Your task to perform on an android device: Do I have any events today? Image 0: 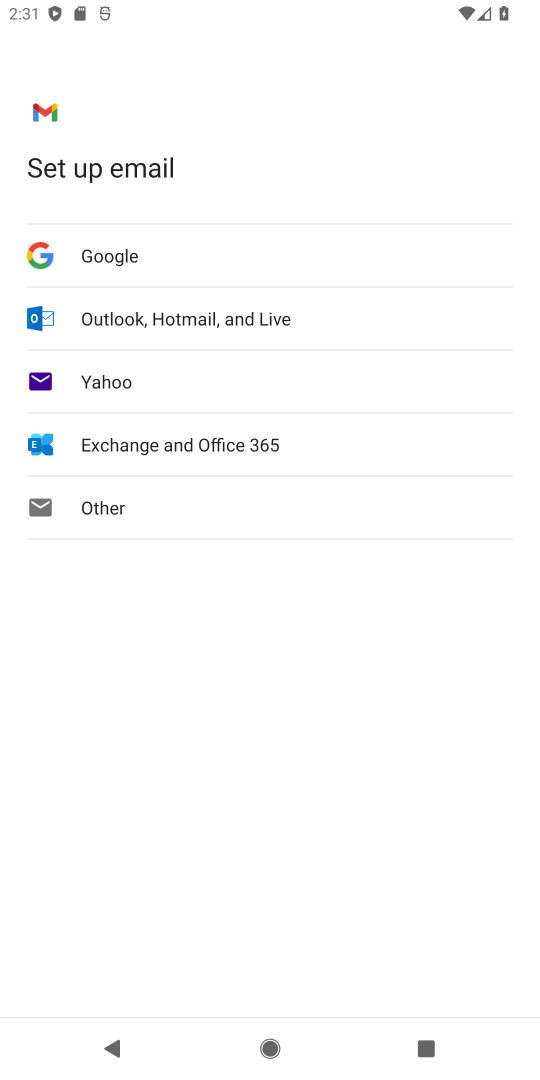
Step 0: press home button
Your task to perform on an android device: Do I have any events today? Image 1: 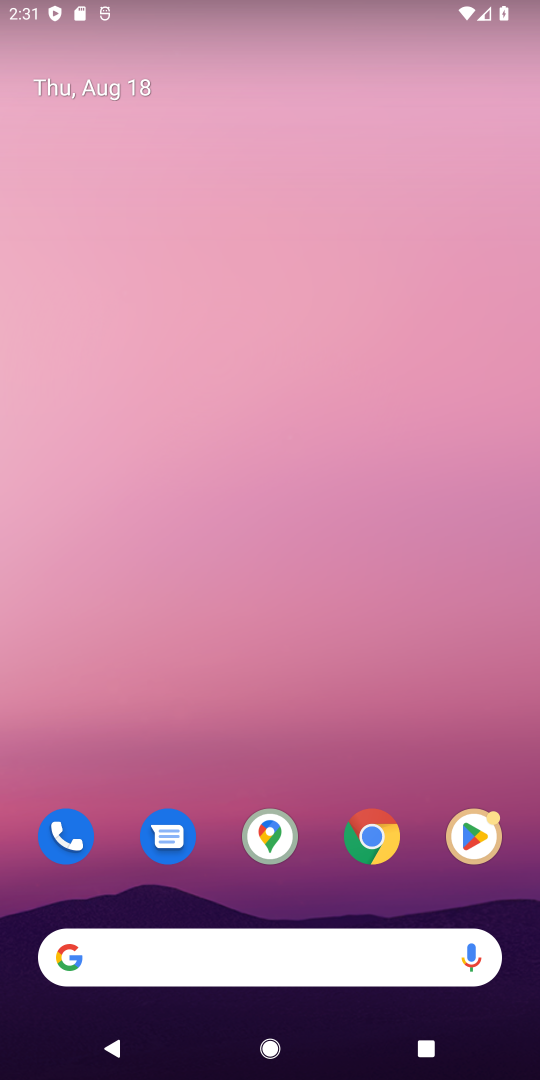
Step 1: drag from (265, 825) to (331, 199)
Your task to perform on an android device: Do I have any events today? Image 2: 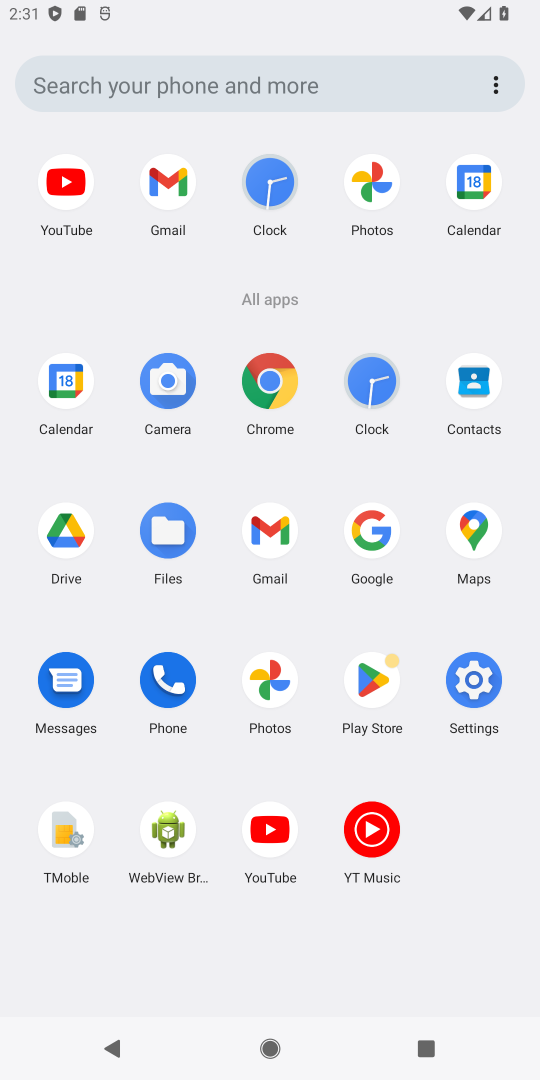
Step 2: click (56, 382)
Your task to perform on an android device: Do I have any events today? Image 3: 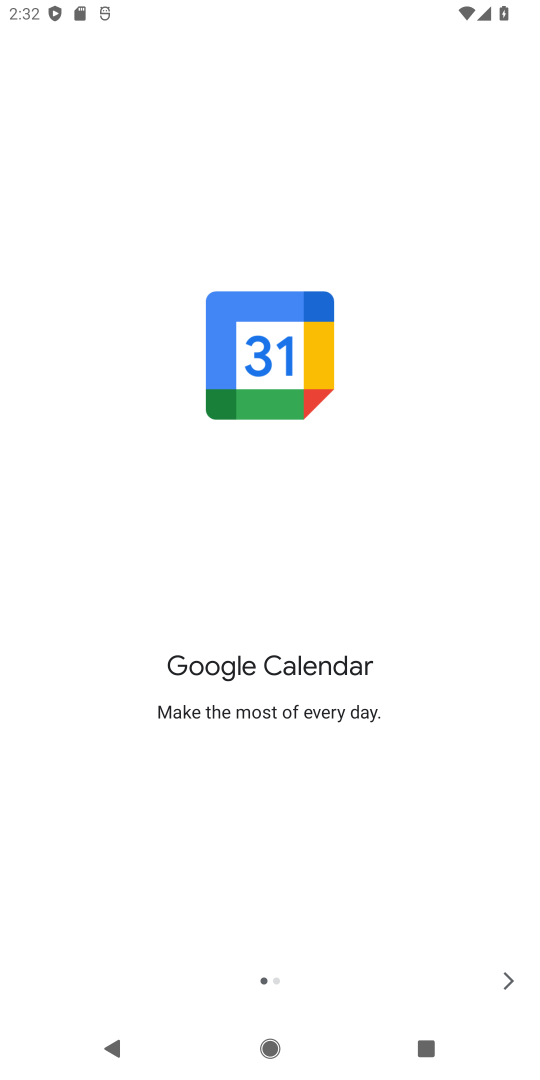
Step 3: click (499, 966)
Your task to perform on an android device: Do I have any events today? Image 4: 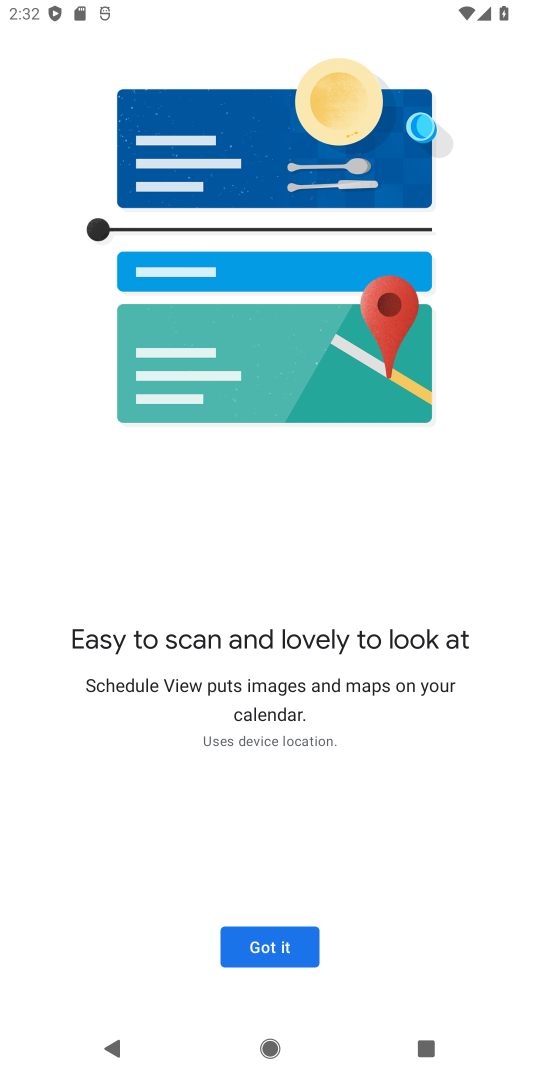
Step 4: click (304, 935)
Your task to perform on an android device: Do I have any events today? Image 5: 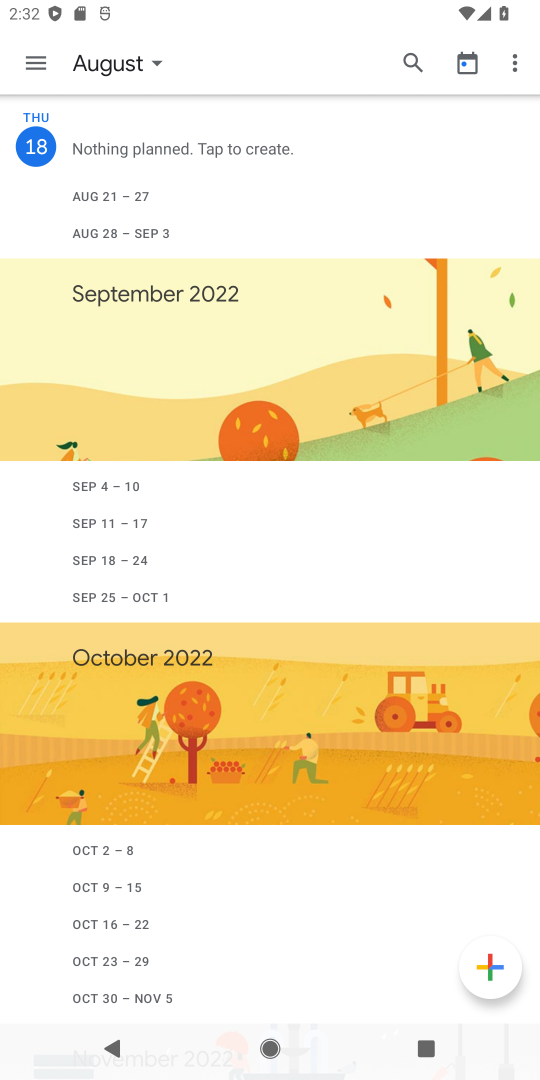
Step 5: click (10, 46)
Your task to perform on an android device: Do I have any events today? Image 6: 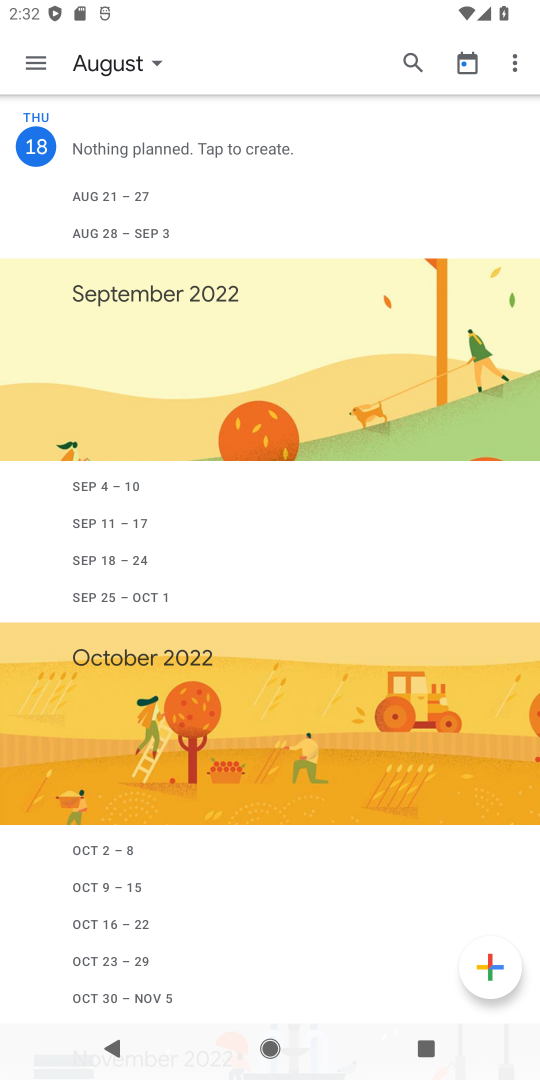
Step 6: click (26, 63)
Your task to perform on an android device: Do I have any events today? Image 7: 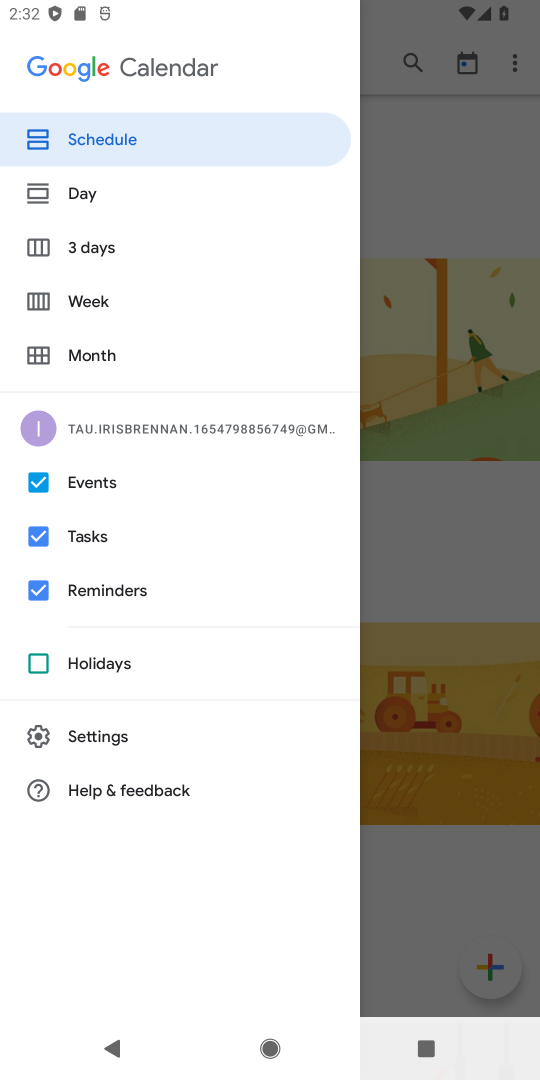
Step 7: click (87, 354)
Your task to perform on an android device: Do I have any events today? Image 8: 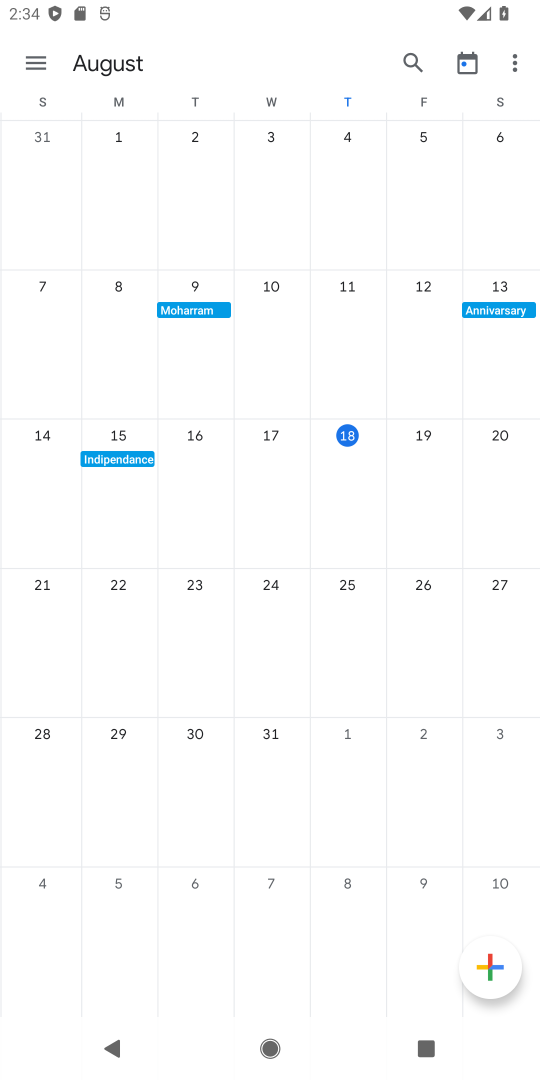
Step 8: click (354, 456)
Your task to perform on an android device: Do I have any events today? Image 9: 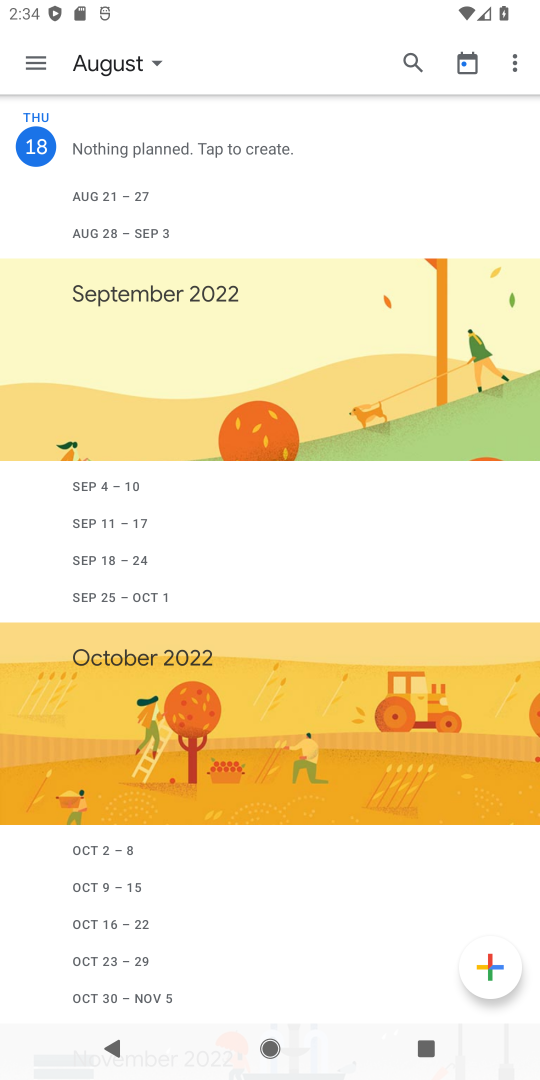
Step 9: task complete